Your task to perform on an android device: stop showing notifications on the lock screen Image 0: 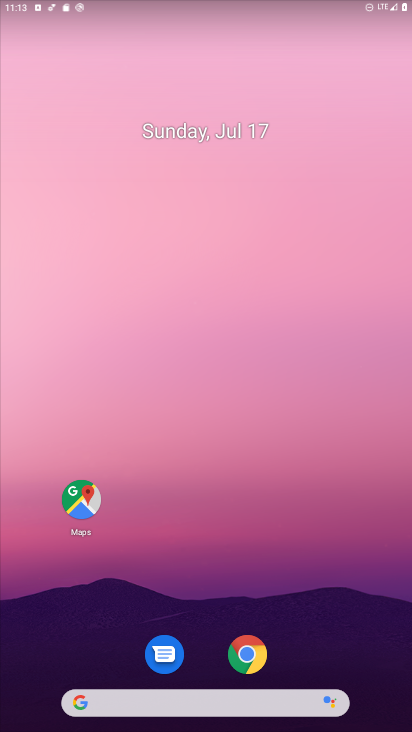
Step 0: drag from (197, 621) to (32, 4)
Your task to perform on an android device: stop showing notifications on the lock screen Image 1: 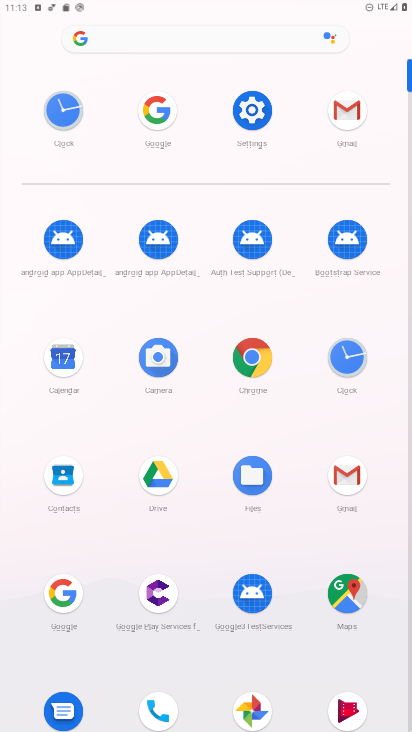
Step 1: click (247, 157)
Your task to perform on an android device: stop showing notifications on the lock screen Image 2: 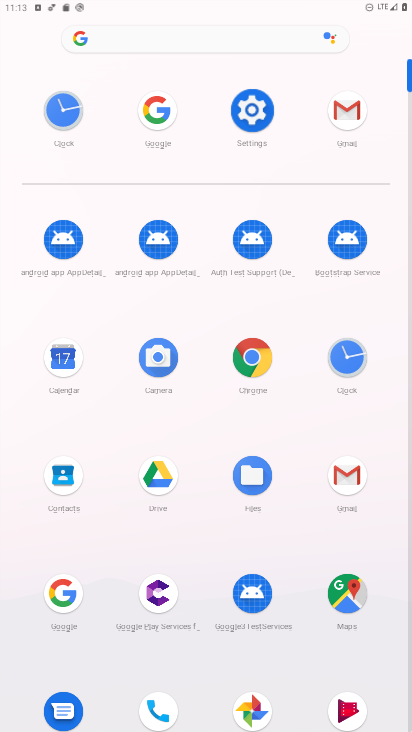
Step 2: click (249, 138)
Your task to perform on an android device: stop showing notifications on the lock screen Image 3: 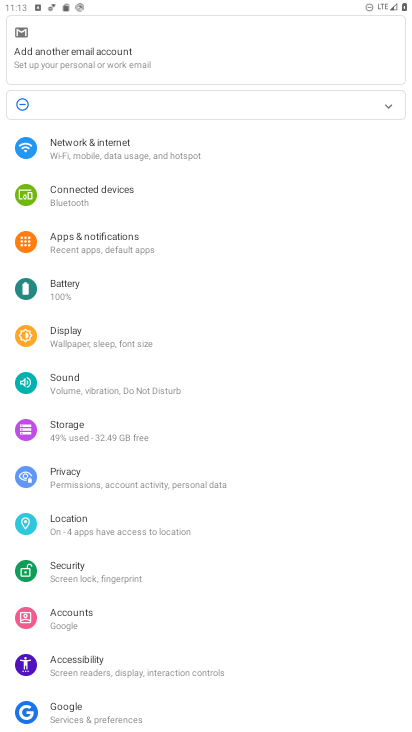
Step 3: click (126, 239)
Your task to perform on an android device: stop showing notifications on the lock screen Image 4: 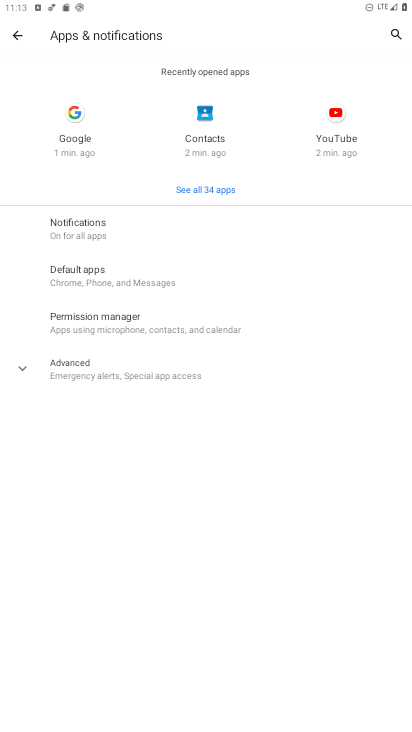
Step 4: click (126, 239)
Your task to perform on an android device: stop showing notifications on the lock screen Image 5: 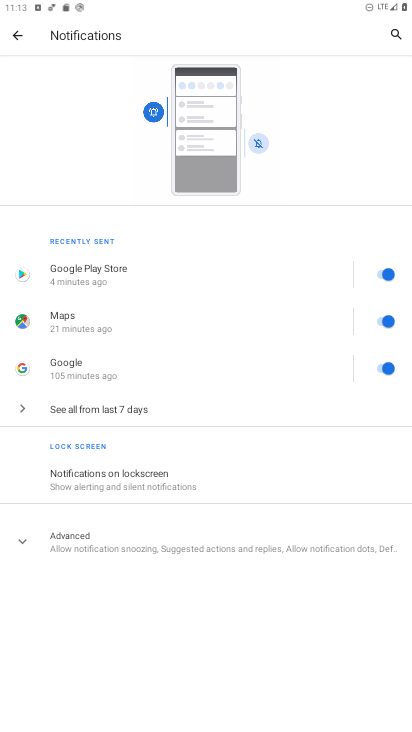
Step 5: click (183, 470)
Your task to perform on an android device: stop showing notifications on the lock screen Image 6: 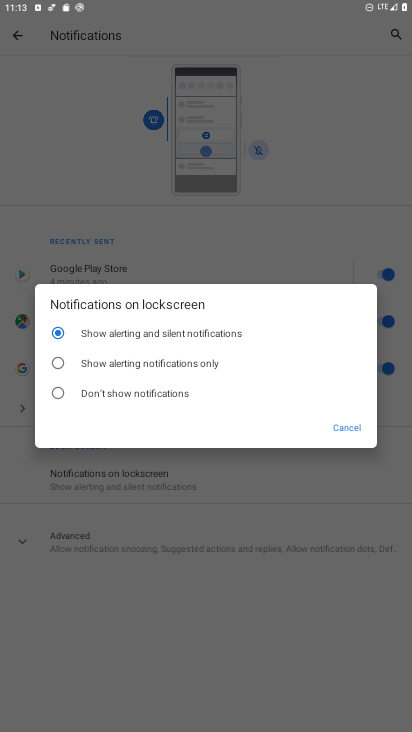
Step 6: click (152, 397)
Your task to perform on an android device: stop showing notifications on the lock screen Image 7: 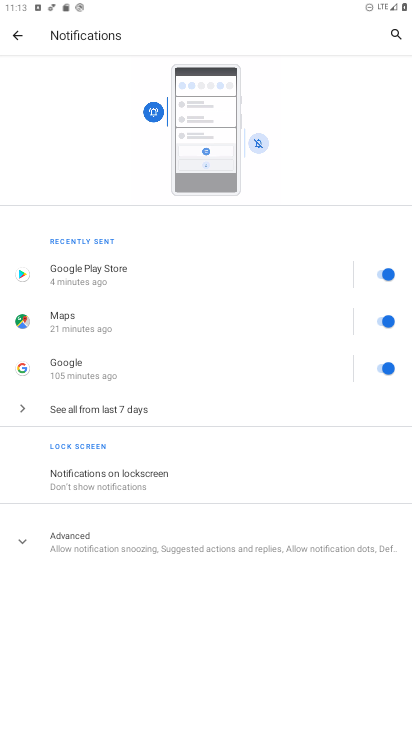
Step 7: click (162, 468)
Your task to perform on an android device: stop showing notifications on the lock screen Image 8: 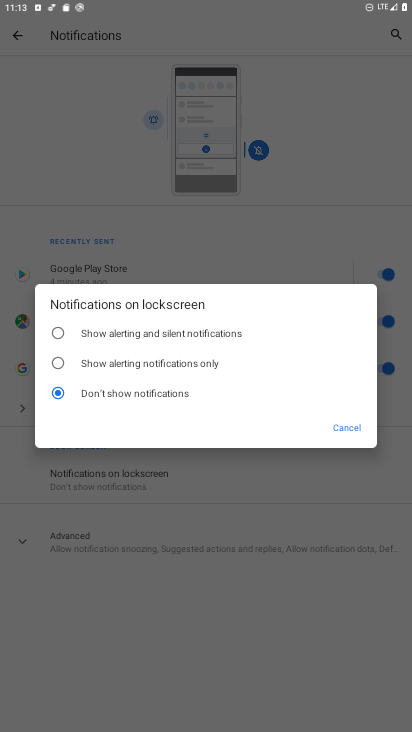
Step 8: task complete